Your task to perform on an android device: see sites visited before in the chrome app Image 0: 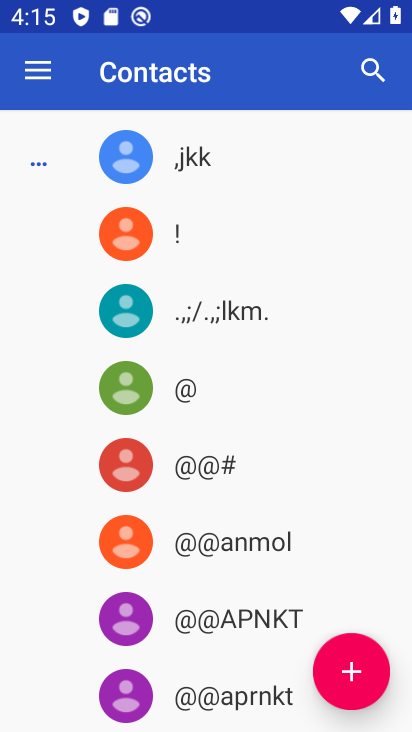
Step 0: press home button
Your task to perform on an android device: see sites visited before in the chrome app Image 1: 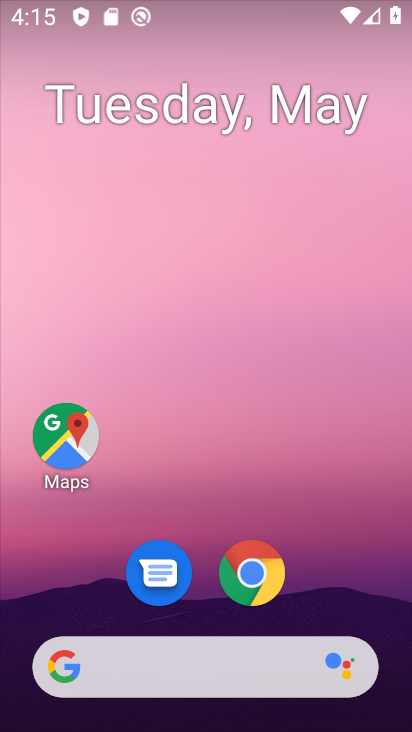
Step 1: click (232, 566)
Your task to perform on an android device: see sites visited before in the chrome app Image 2: 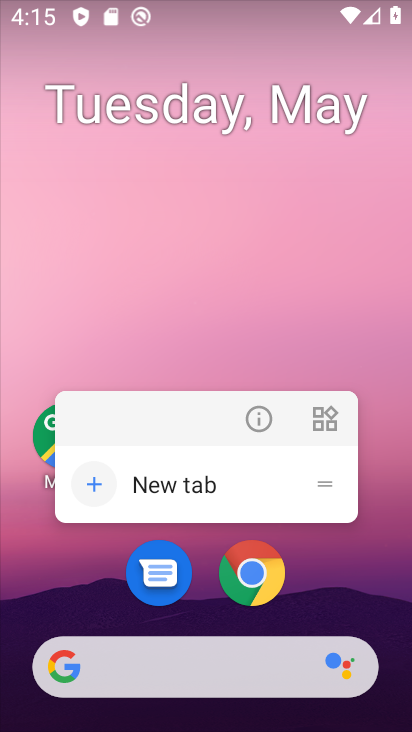
Step 2: click (257, 573)
Your task to perform on an android device: see sites visited before in the chrome app Image 3: 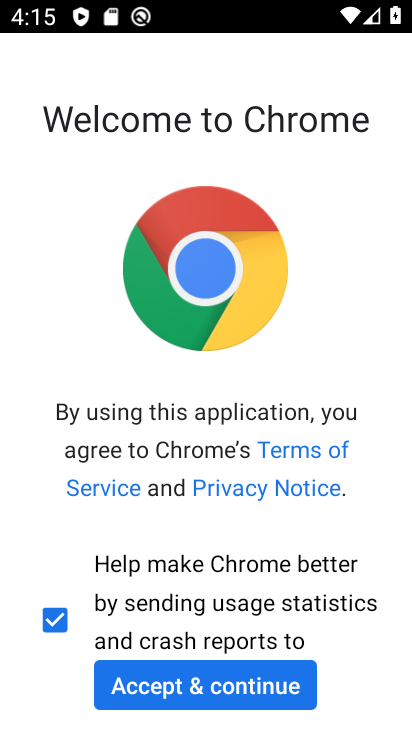
Step 3: click (227, 685)
Your task to perform on an android device: see sites visited before in the chrome app Image 4: 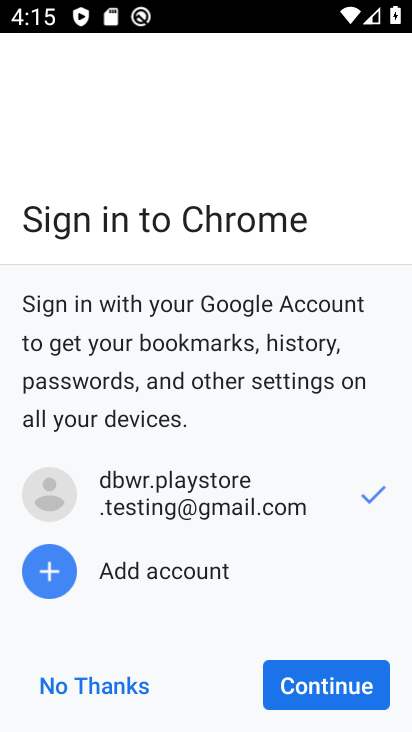
Step 4: click (282, 676)
Your task to perform on an android device: see sites visited before in the chrome app Image 5: 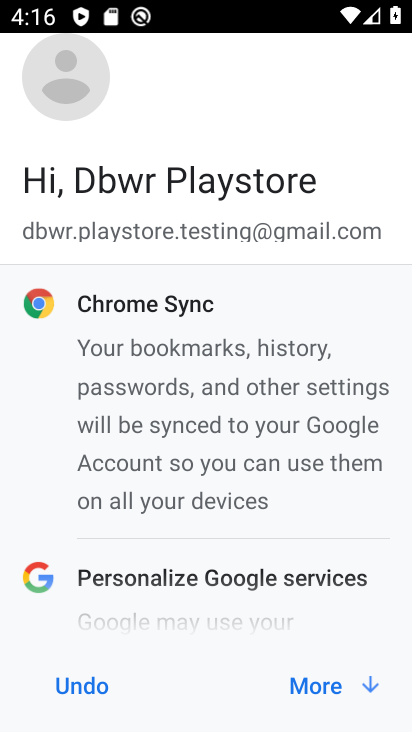
Step 5: click (325, 688)
Your task to perform on an android device: see sites visited before in the chrome app Image 6: 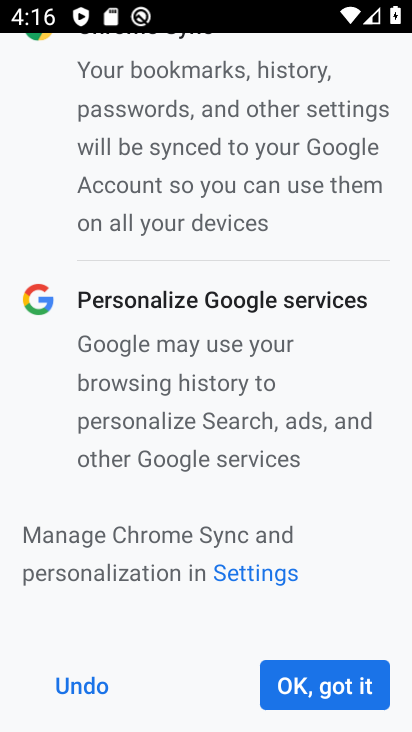
Step 6: click (323, 666)
Your task to perform on an android device: see sites visited before in the chrome app Image 7: 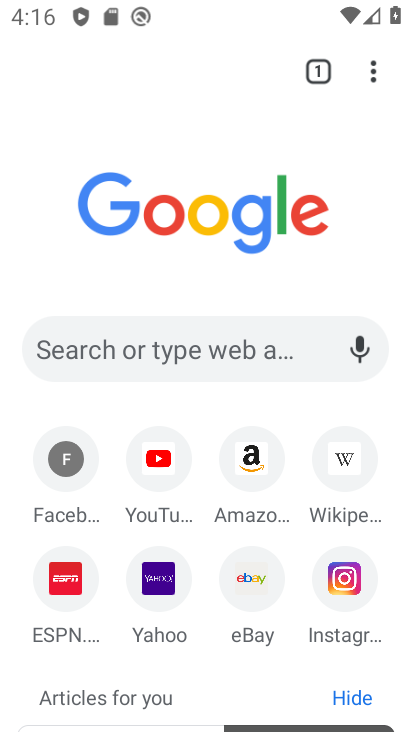
Step 7: click (358, 61)
Your task to perform on an android device: see sites visited before in the chrome app Image 8: 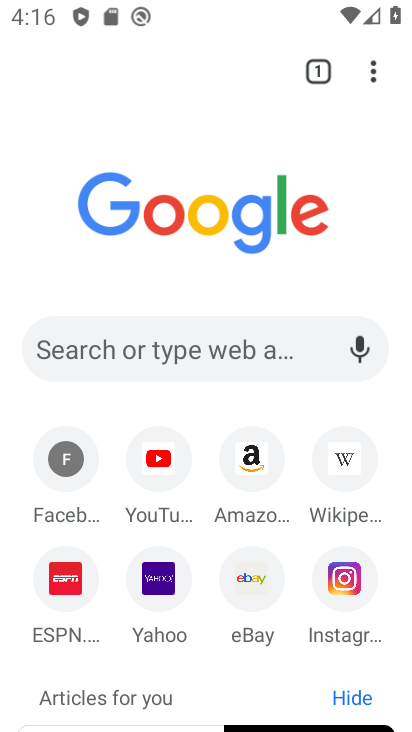
Step 8: task complete